Your task to perform on an android device: Go to location settings Image 0: 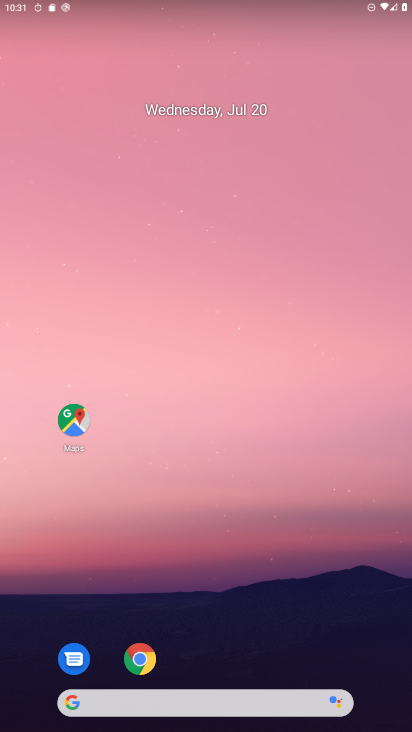
Step 0: drag from (271, 589) to (236, 166)
Your task to perform on an android device: Go to location settings Image 1: 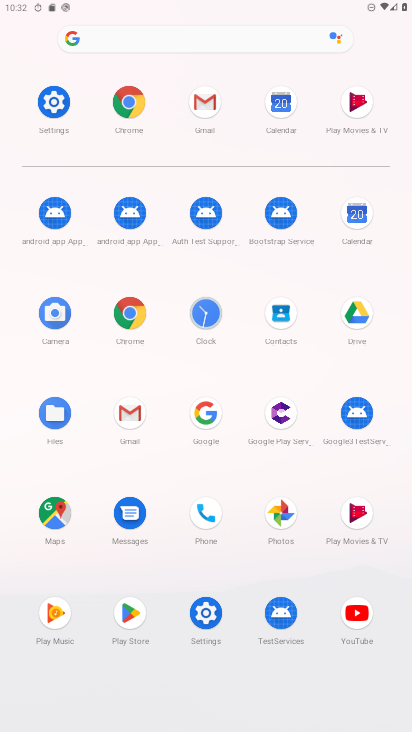
Step 1: click (58, 96)
Your task to perform on an android device: Go to location settings Image 2: 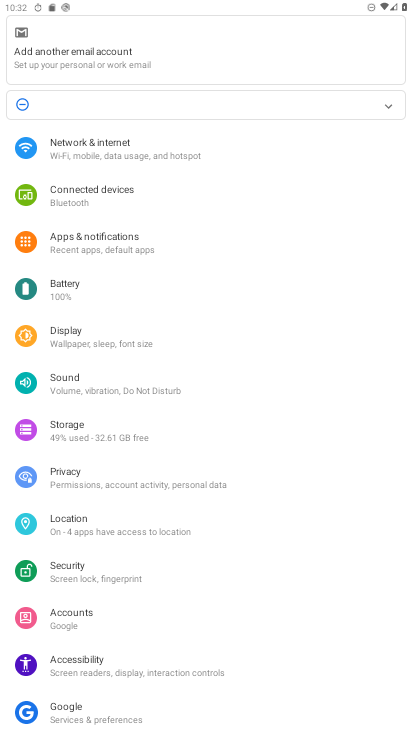
Step 2: click (89, 527)
Your task to perform on an android device: Go to location settings Image 3: 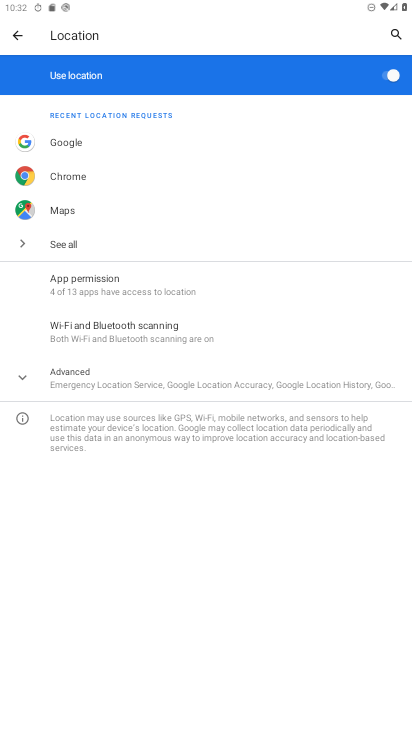
Step 3: task complete